Your task to perform on an android device: turn off translation in the chrome app Image 0: 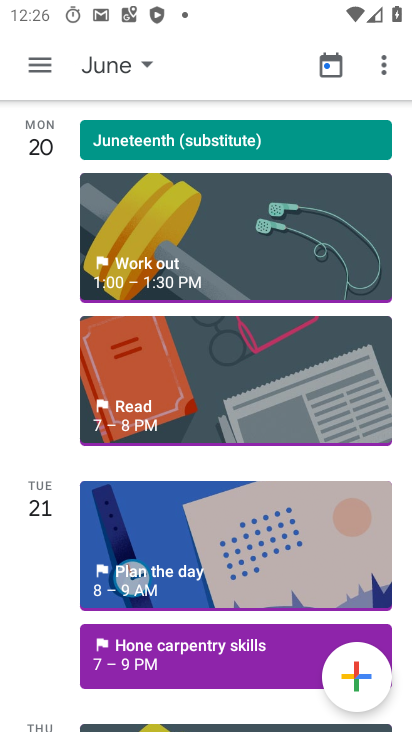
Step 0: press home button
Your task to perform on an android device: turn off translation in the chrome app Image 1: 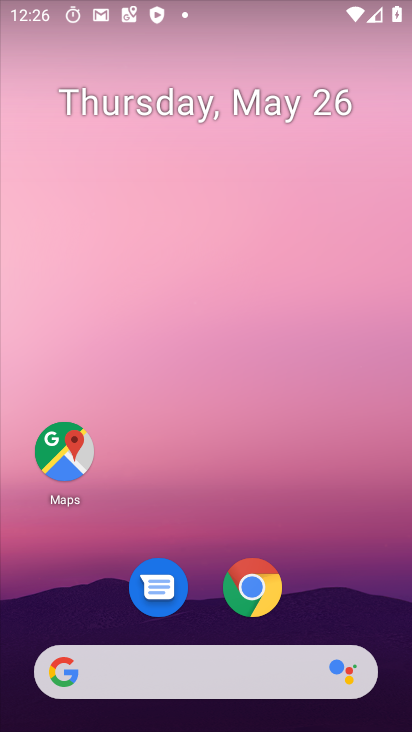
Step 1: drag from (269, 691) to (315, 175)
Your task to perform on an android device: turn off translation in the chrome app Image 2: 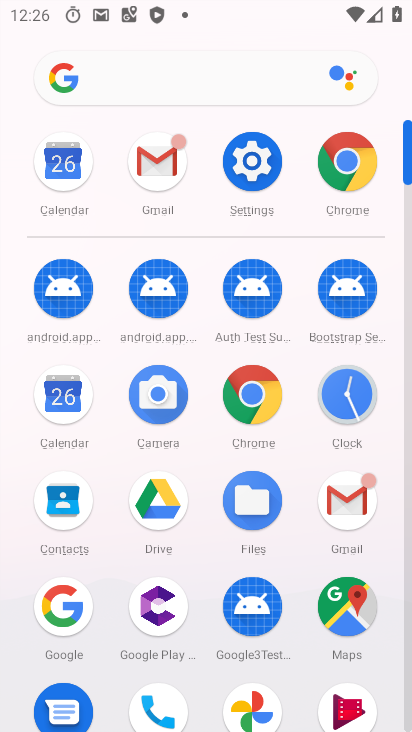
Step 2: click (334, 149)
Your task to perform on an android device: turn off translation in the chrome app Image 3: 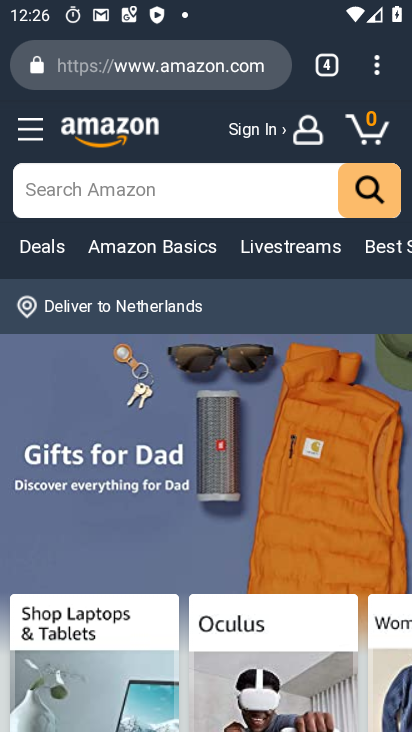
Step 3: click (385, 76)
Your task to perform on an android device: turn off translation in the chrome app Image 4: 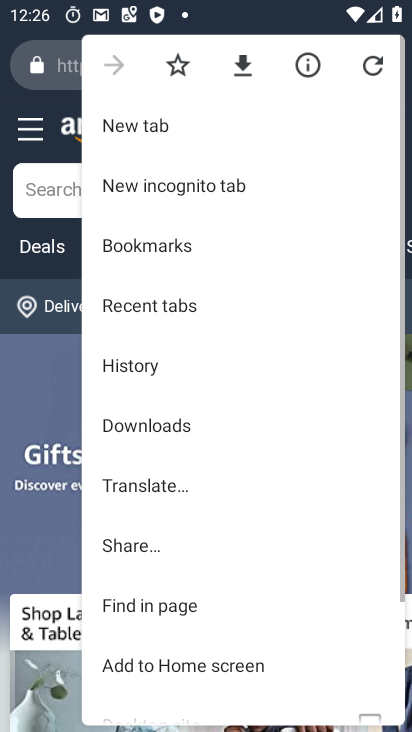
Step 4: drag from (157, 639) to (150, 406)
Your task to perform on an android device: turn off translation in the chrome app Image 5: 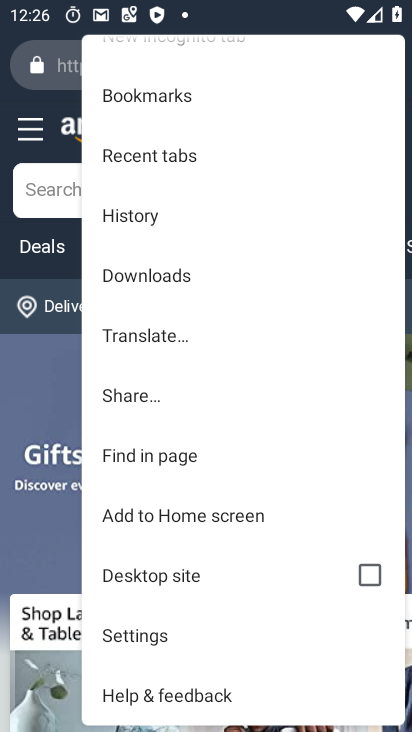
Step 5: click (142, 640)
Your task to perform on an android device: turn off translation in the chrome app Image 6: 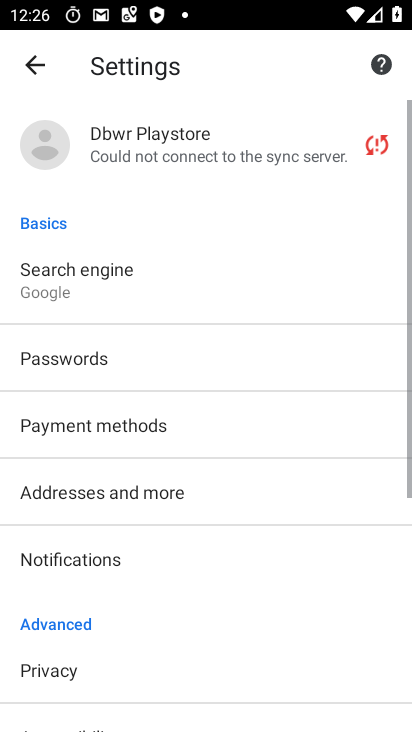
Step 6: drag from (125, 603) to (181, 250)
Your task to perform on an android device: turn off translation in the chrome app Image 7: 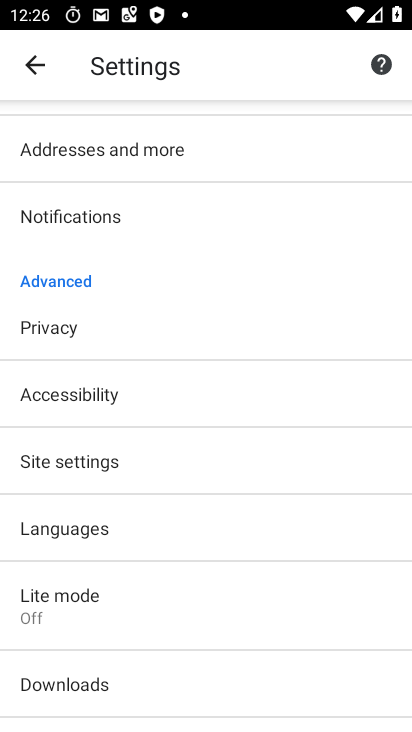
Step 7: click (86, 533)
Your task to perform on an android device: turn off translation in the chrome app Image 8: 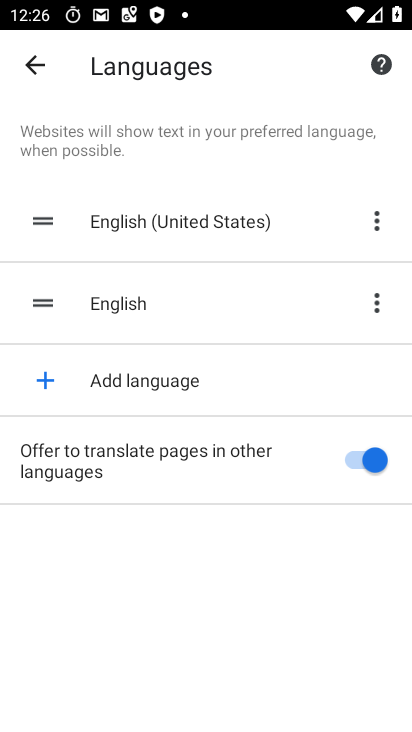
Step 8: click (361, 457)
Your task to perform on an android device: turn off translation in the chrome app Image 9: 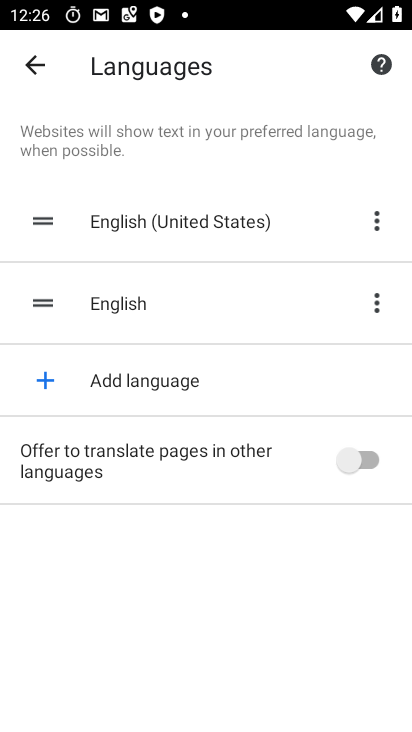
Step 9: click (361, 457)
Your task to perform on an android device: turn off translation in the chrome app Image 10: 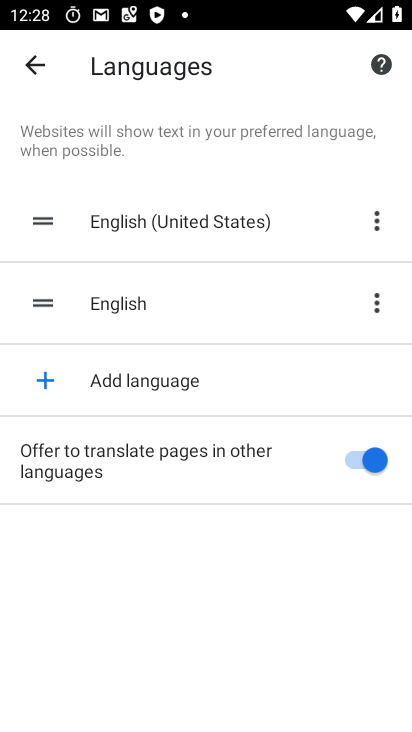
Step 10: task complete